Your task to perform on an android device: What's the weather like in Paris? Image 0: 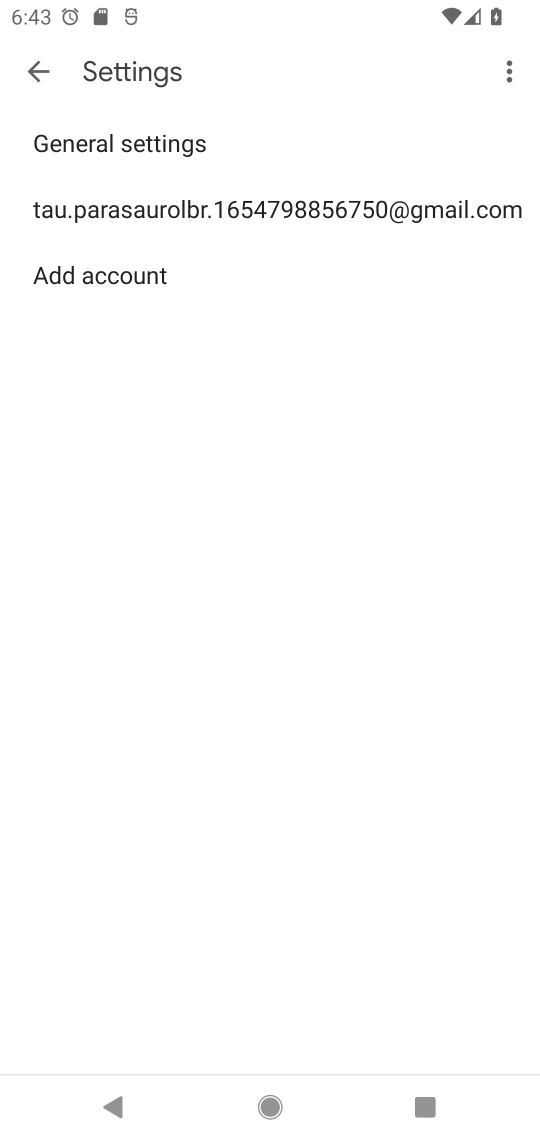
Step 0: press home button
Your task to perform on an android device: What's the weather like in Paris? Image 1: 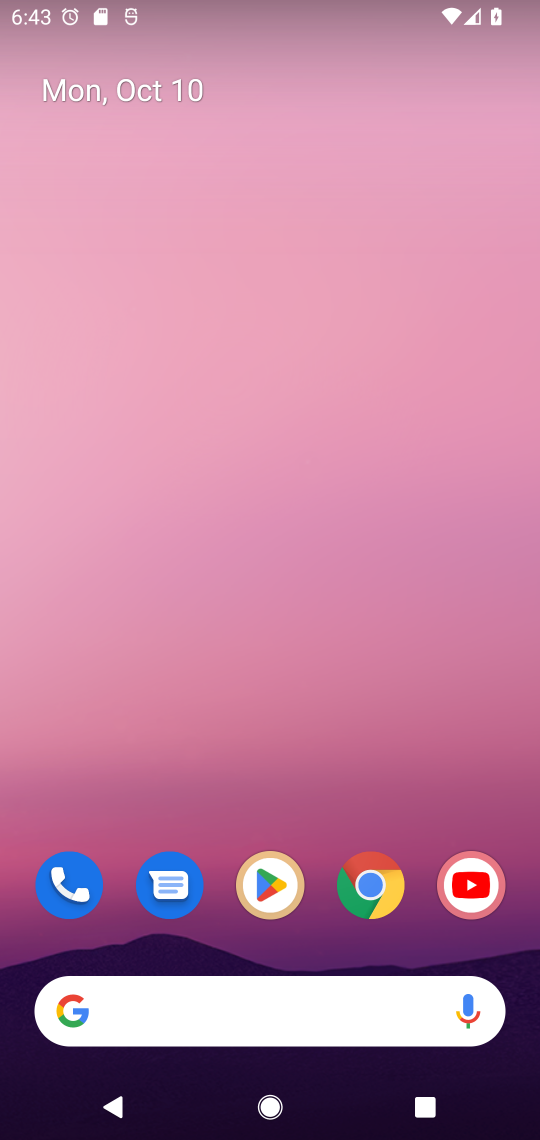
Step 1: click (352, 863)
Your task to perform on an android device: What's the weather like in Paris? Image 2: 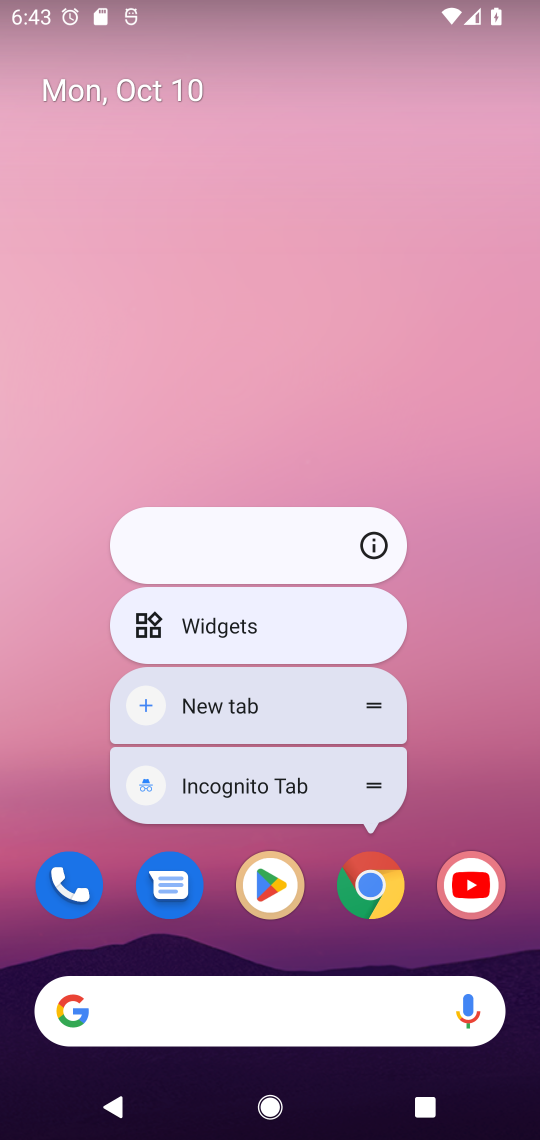
Step 2: click (376, 892)
Your task to perform on an android device: What's the weather like in Paris? Image 3: 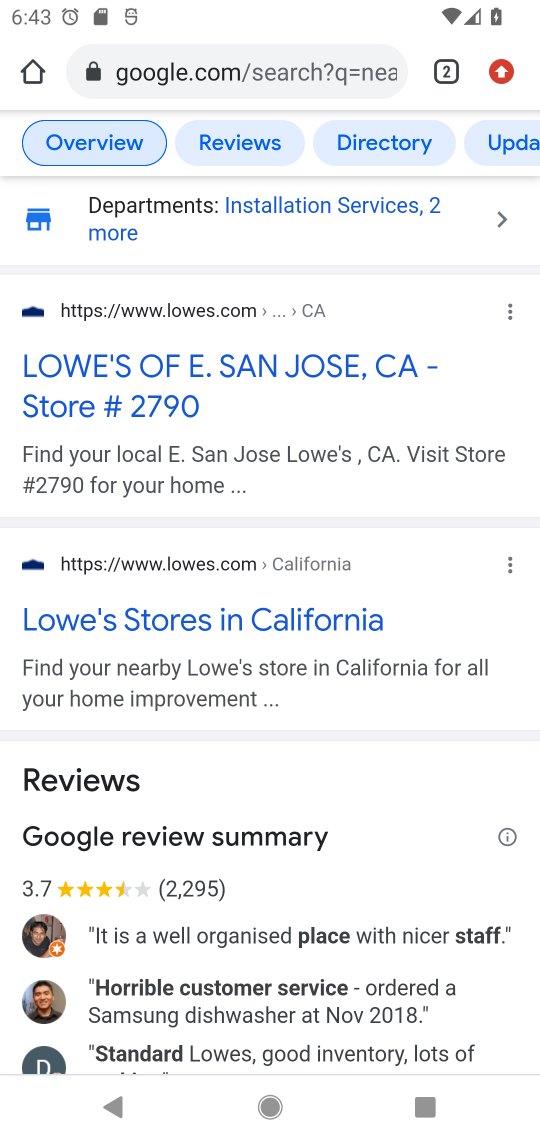
Step 3: click (315, 66)
Your task to perform on an android device: What's the weather like in Paris? Image 4: 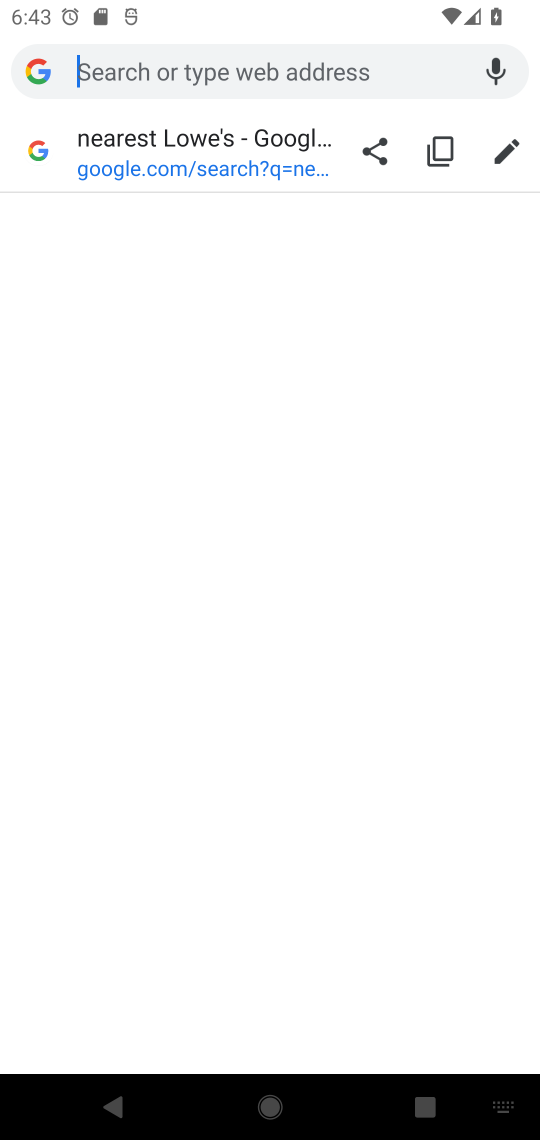
Step 4: type "weather like in Paris"
Your task to perform on an android device: What's the weather like in Paris? Image 5: 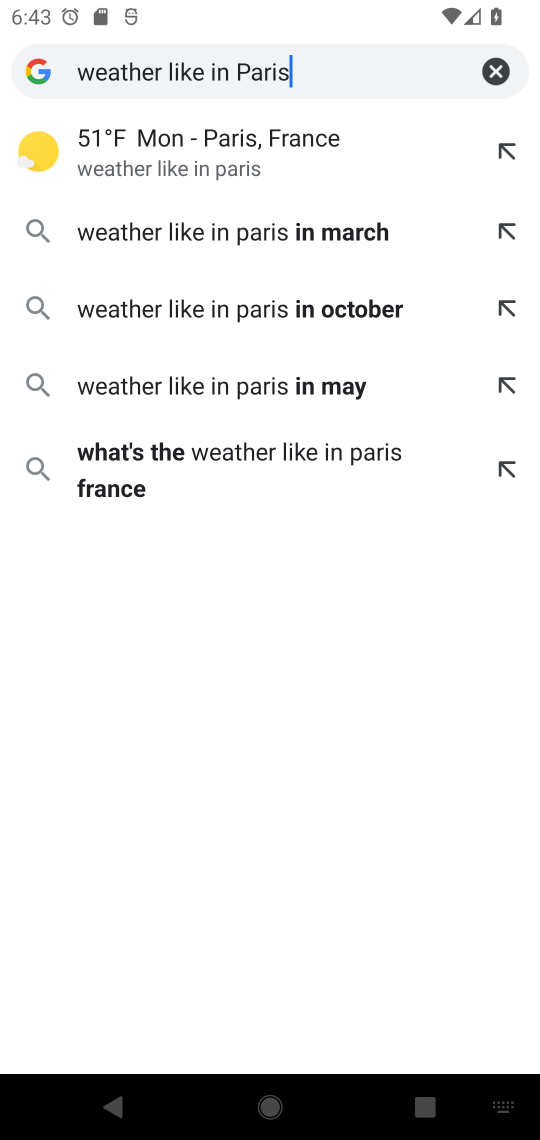
Step 5: click (215, 141)
Your task to perform on an android device: What's the weather like in Paris? Image 6: 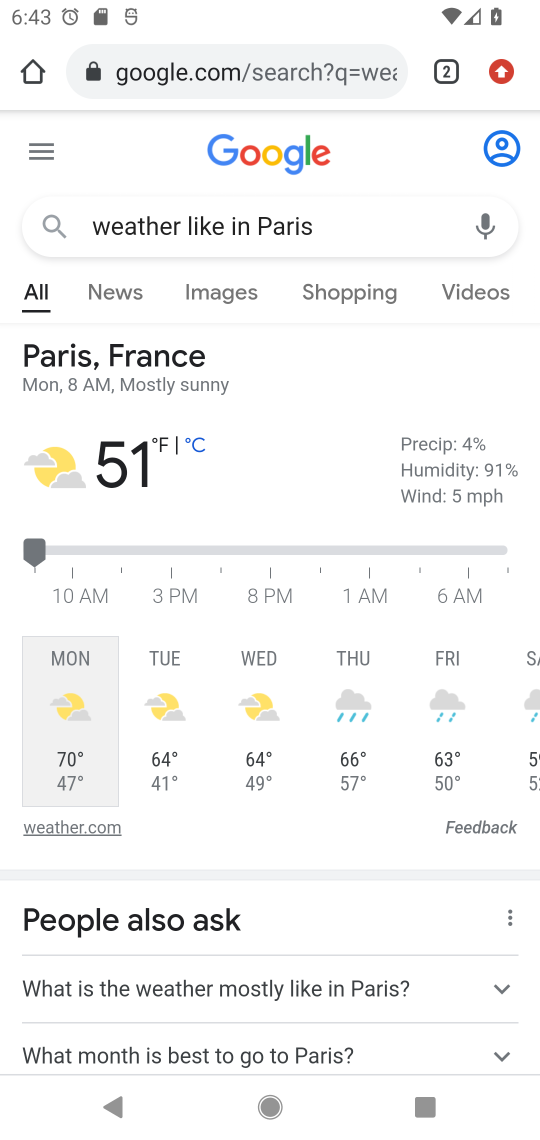
Step 6: task complete